Your task to perform on an android device: change notifications settings Image 0: 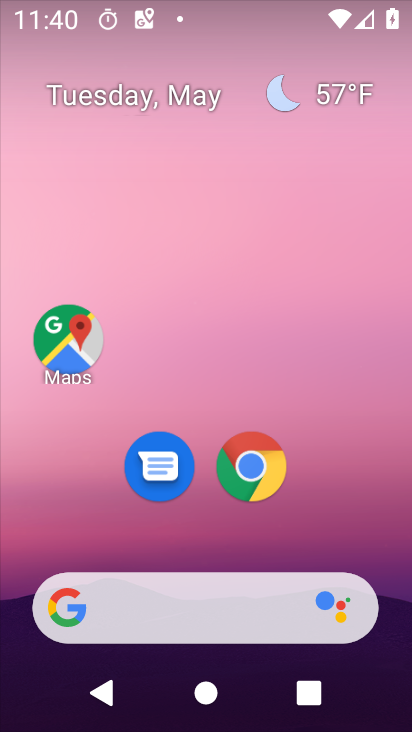
Step 0: drag from (215, 374) to (254, 114)
Your task to perform on an android device: change notifications settings Image 1: 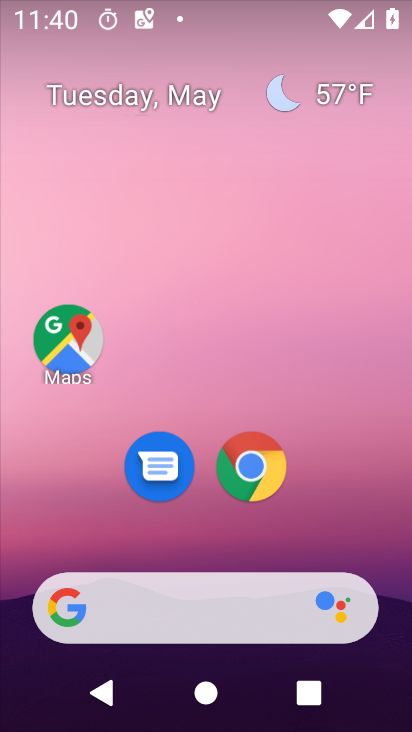
Step 1: drag from (207, 501) to (232, 109)
Your task to perform on an android device: change notifications settings Image 2: 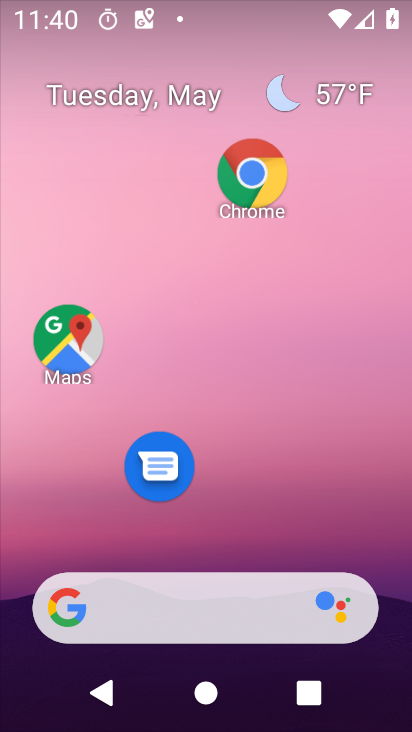
Step 2: drag from (200, 578) to (148, 91)
Your task to perform on an android device: change notifications settings Image 3: 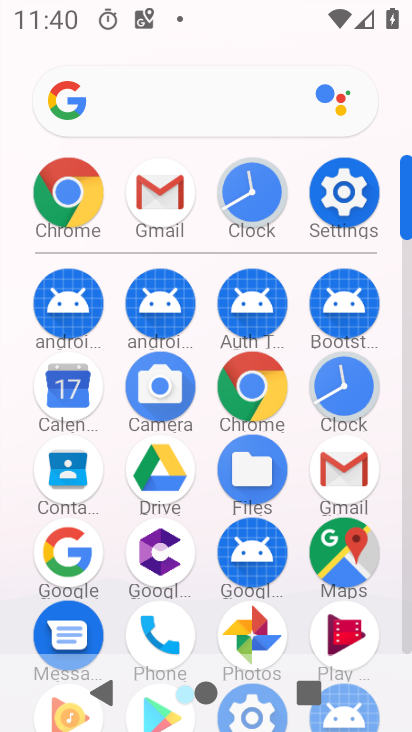
Step 3: click (350, 207)
Your task to perform on an android device: change notifications settings Image 4: 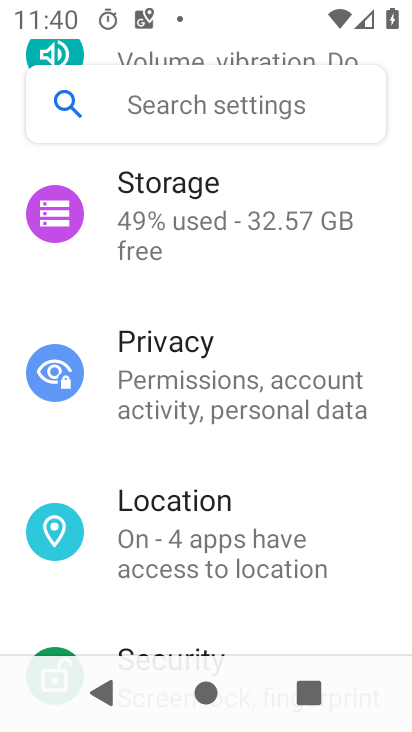
Step 4: drag from (245, 194) to (251, 613)
Your task to perform on an android device: change notifications settings Image 5: 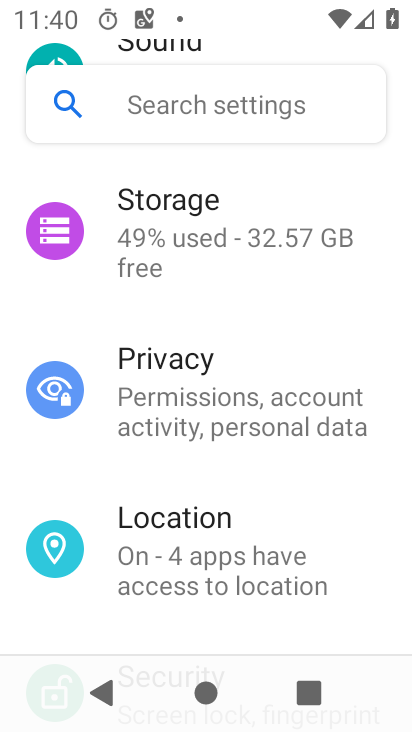
Step 5: drag from (285, 183) to (347, 584)
Your task to perform on an android device: change notifications settings Image 6: 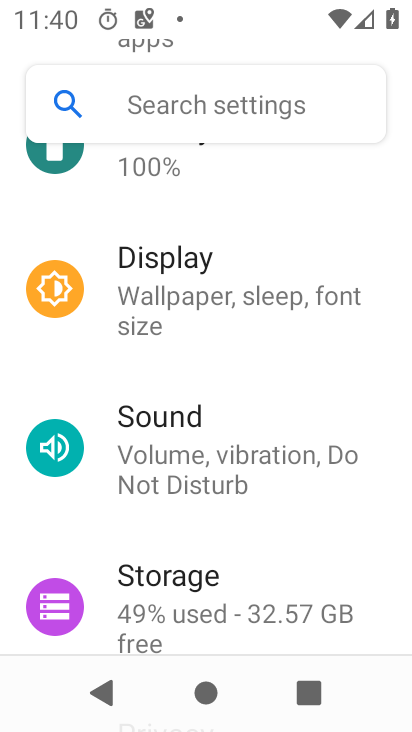
Step 6: drag from (279, 190) to (282, 596)
Your task to perform on an android device: change notifications settings Image 7: 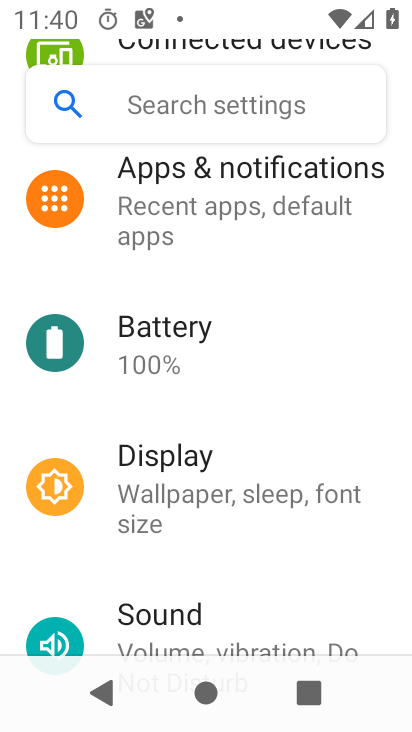
Step 7: drag from (244, 218) to (263, 594)
Your task to perform on an android device: change notifications settings Image 8: 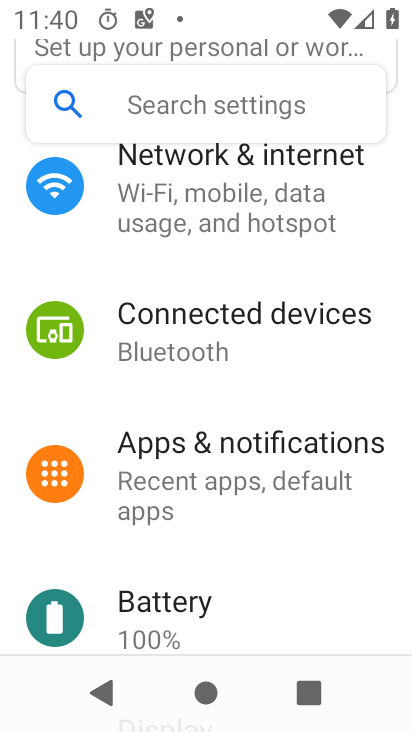
Step 8: drag from (216, 296) to (223, 559)
Your task to perform on an android device: change notifications settings Image 9: 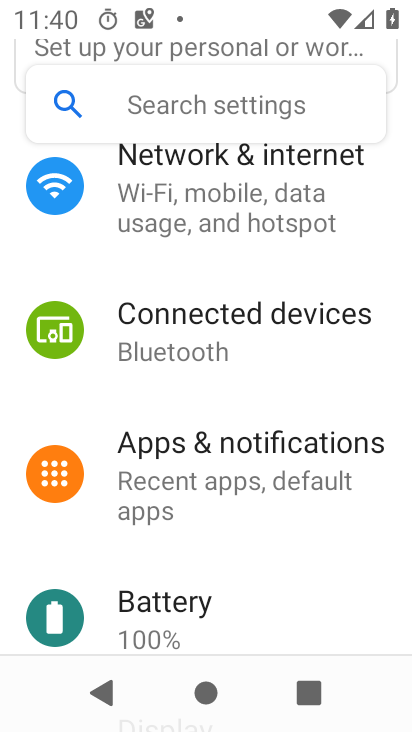
Step 9: click (218, 492)
Your task to perform on an android device: change notifications settings Image 10: 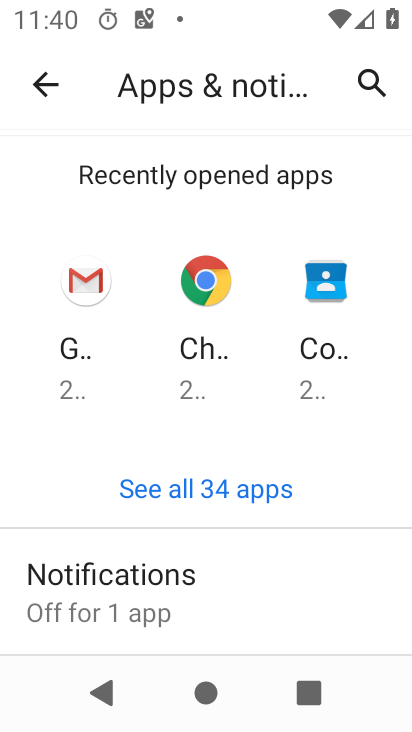
Step 10: task complete